Your task to perform on an android device: turn notification dots off Image 0: 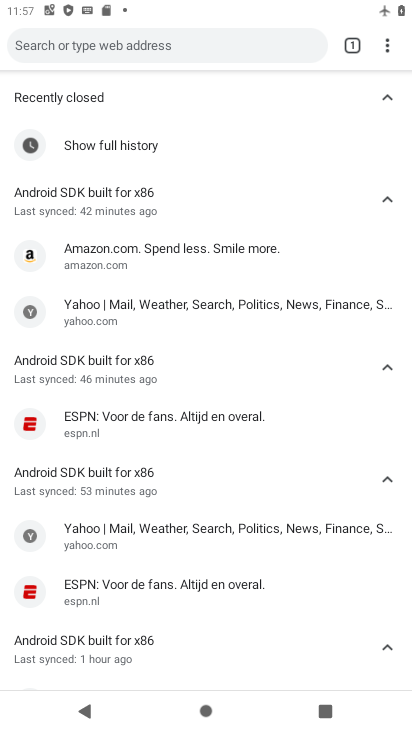
Step 0: press home button
Your task to perform on an android device: turn notification dots off Image 1: 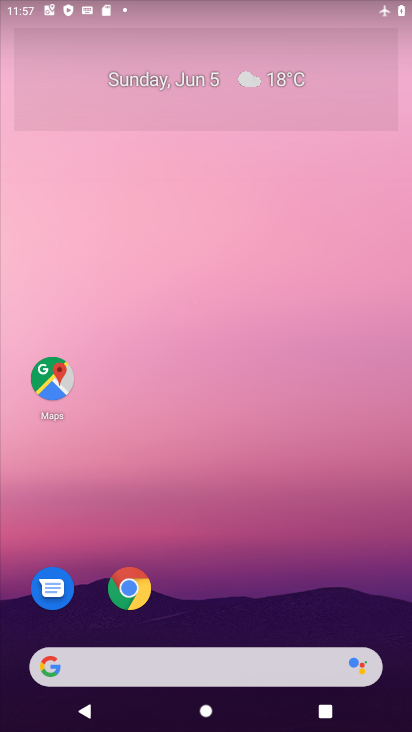
Step 1: drag from (268, 617) to (252, 134)
Your task to perform on an android device: turn notification dots off Image 2: 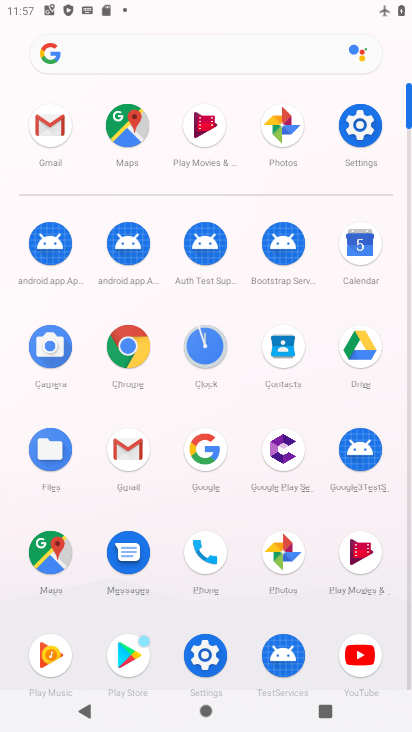
Step 2: click (356, 140)
Your task to perform on an android device: turn notification dots off Image 3: 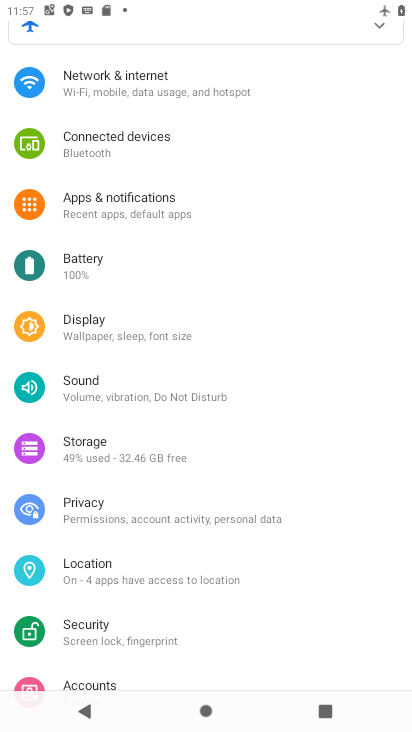
Step 3: click (232, 205)
Your task to perform on an android device: turn notification dots off Image 4: 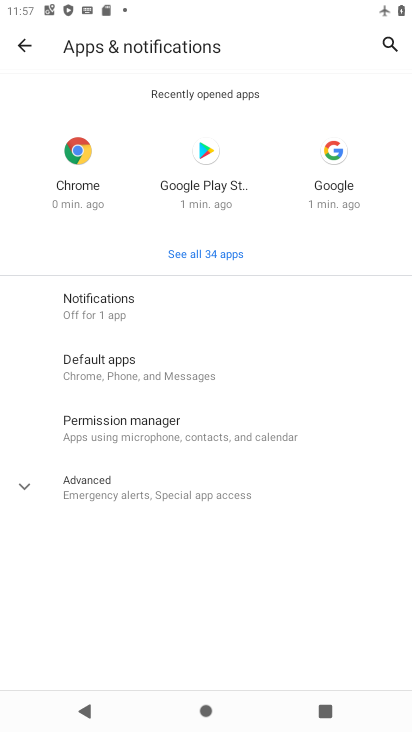
Step 4: click (251, 299)
Your task to perform on an android device: turn notification dots off Image 5: 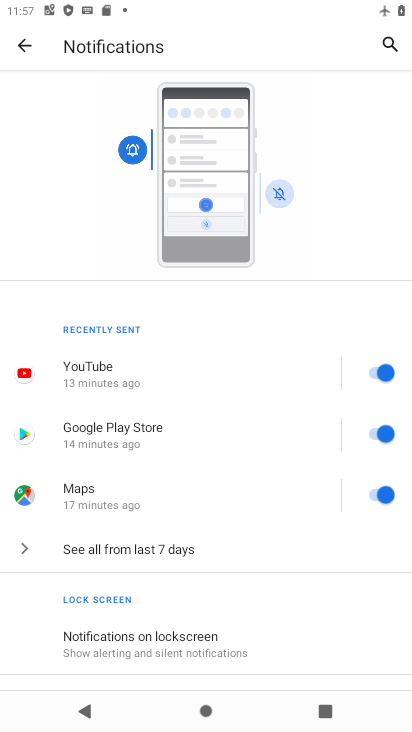
Step 5: drag from (324, 557) to (296, 234)
Your task to perform on an android device: turn notification dots off Image 6: 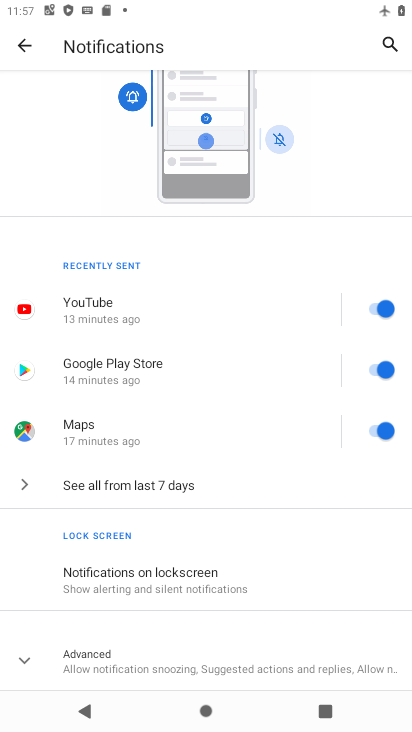
Step 6: click (313, 675)
Your task to perform on an android device: turn notification dots off Image 7: 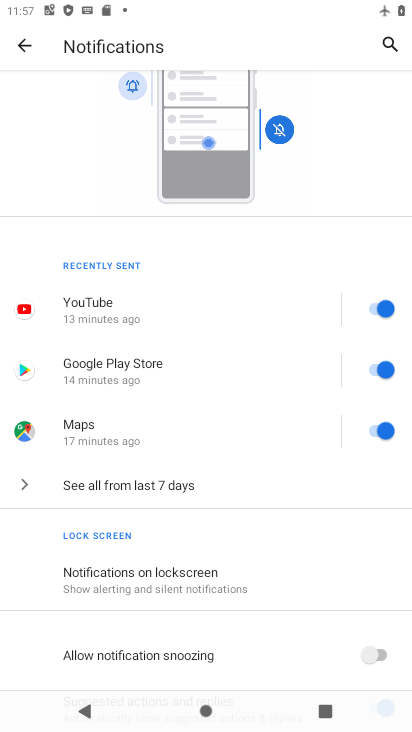
Step 7: drag from (259, 607) to (226, 376)
Your task to perform on an android device: turn notification dots off Image 8: 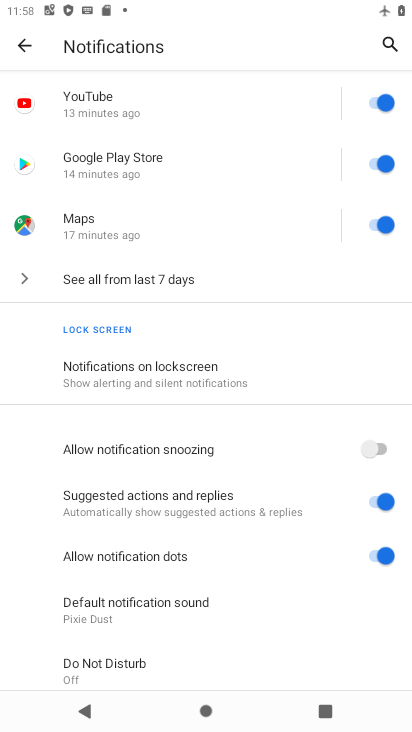
Step 8: click (380, 561)
Your task to perform on an android device: turn notification dots off Image 9: 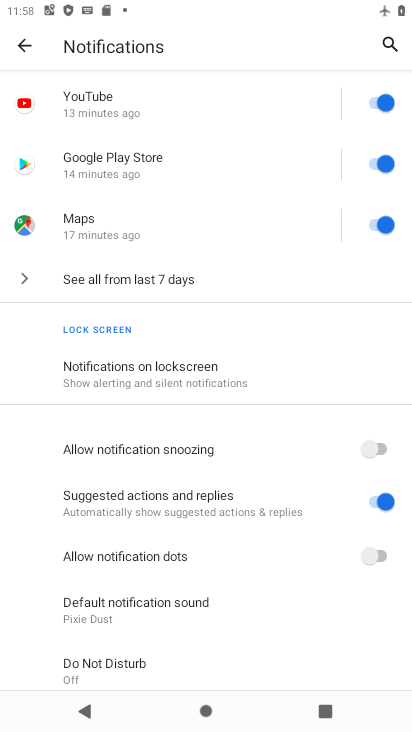
Step 9: task complete